Your task to perform on an android device: Check the weather Image 0: 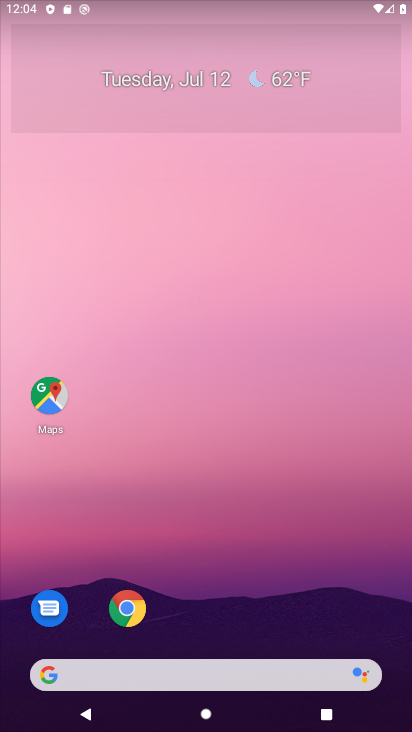
Step 0: drag from (271, 613) to (377, 37)
Your task to perform on an android device: Check the weather Image 1: 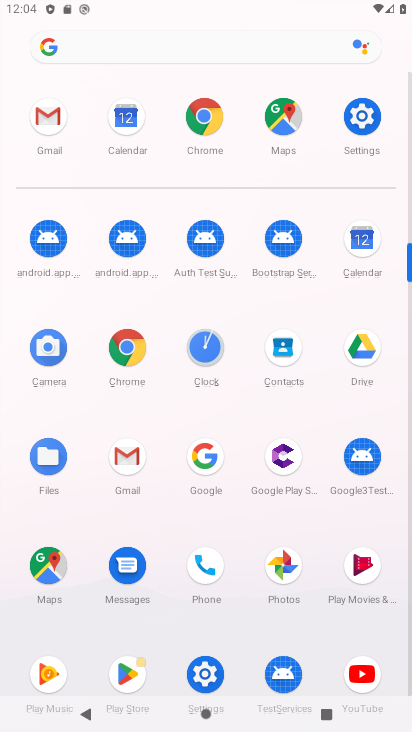
Step 1: drag from (370, 614) to (345, 235)
Your task to perform on an android device: Check the weather Image 2: 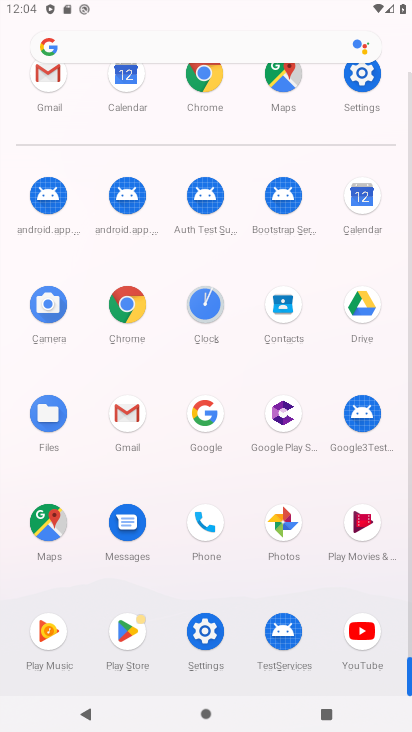
Step 2: click (214, 412)
Your task to perform on an android device: Check the weather Image 3: 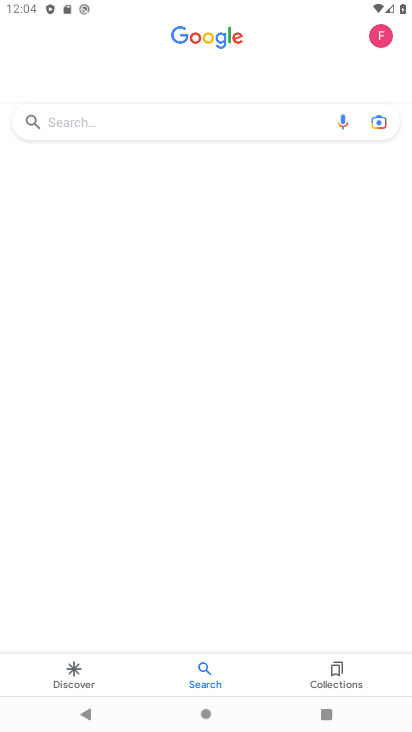
Step 3: click (262, 121)
Your task to perform on an android device: Check the weather Image 4: 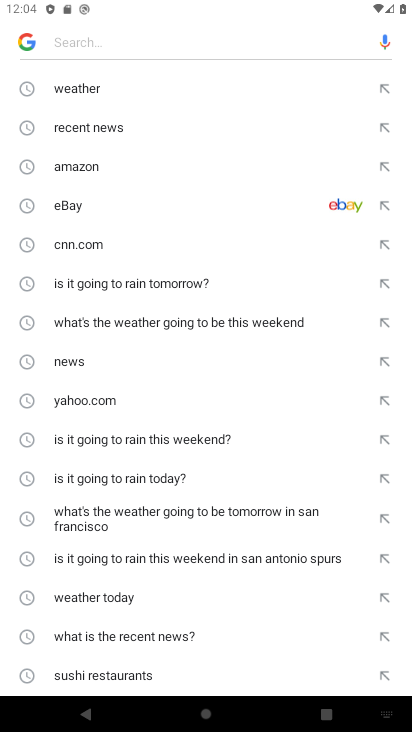
Step 4: click (94, 87)
Your task to perform on an android device: Check the weather Image 5: 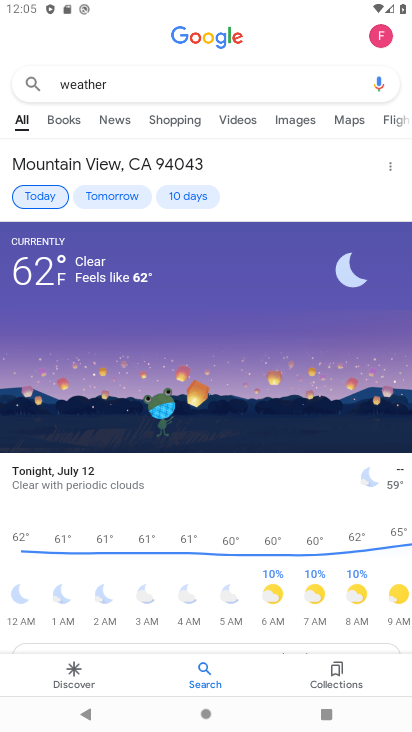
Step 5: task complete